Your task to perform on an android device: delete browsing data in the chrome app Image 0: 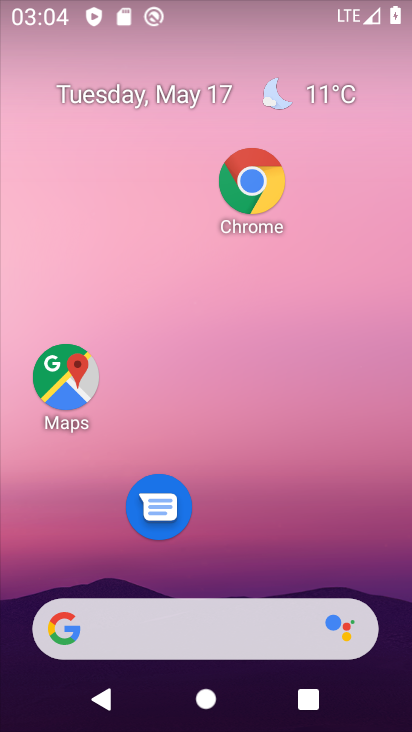
Step 0: click (234, 203)
Your task to perform on an android device: delete browsing data in the chrome app Image 1: 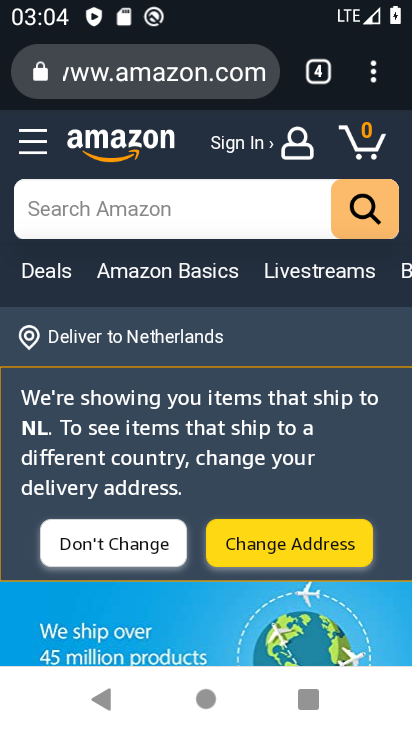
Step 1: click (387, 81)
Your task to perform on an android device: delete browsing data in the chrome app Image 2: 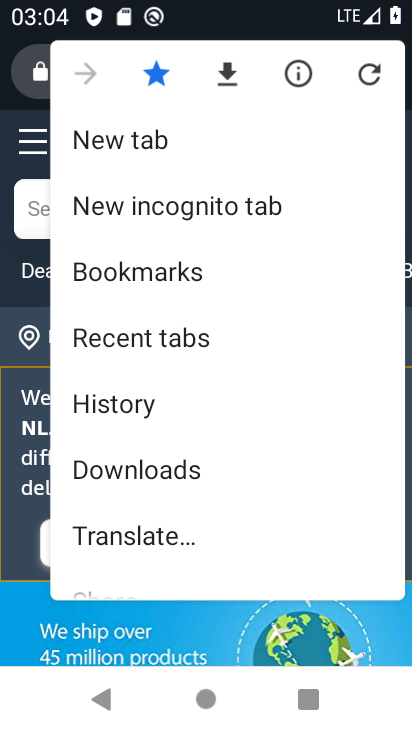
Step 2: click (138, 407)
Your task to perform on an android device: delete browsing data in the chrome app Image 3: 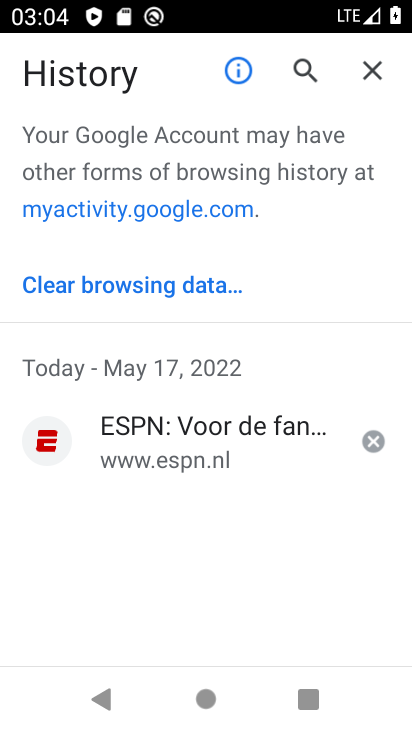
Step 3: click (84, 274)
Your task to perform on an android device: delete browsing data in the chrome app Image 4: 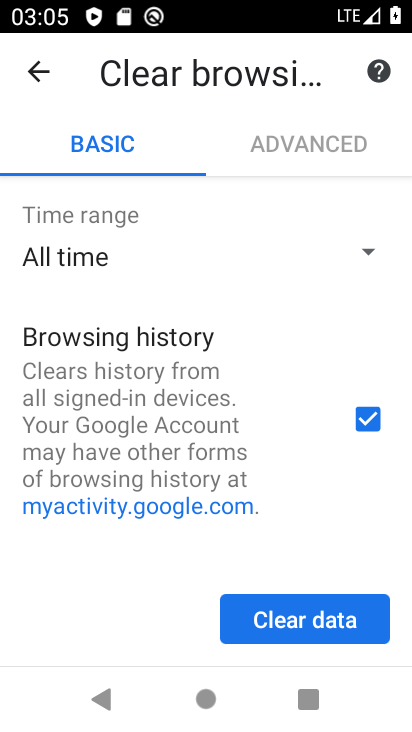
Step 4: click (292, 621)
Your task to perform on an android device: delete browsing data in the chrome app Image 5: 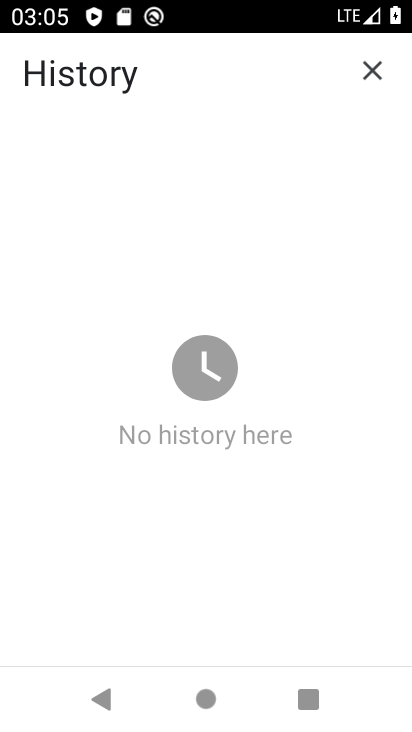
Step 5: task complete